Your task to perform on an android device: set default search engine in the chrome app Image 0: 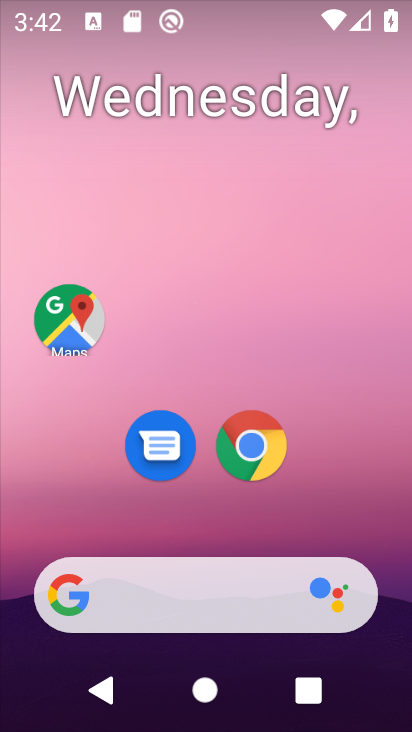
Step 0: click (300, 147)
Your task to perform on an android device: set default search engine in the chrome app Image 1: 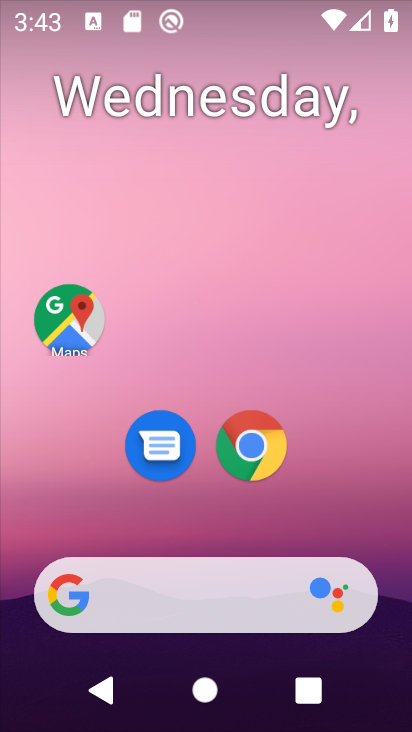
Step 1: drag from (388, 504) to (382, 34)
Your task to perform on an android device: set default search engine in the chrome app Image 2: 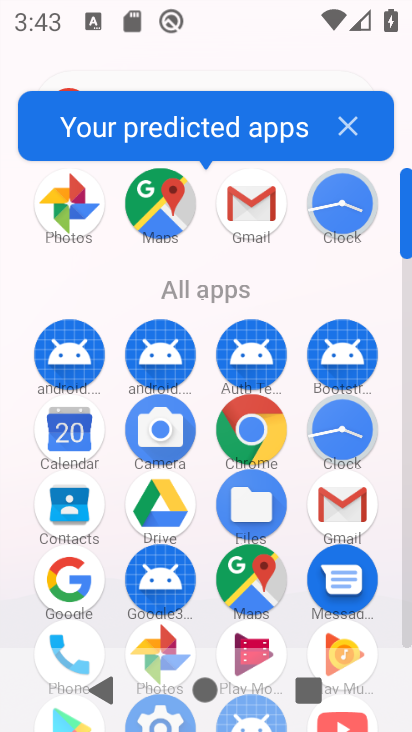
Step 2: click (250, 429)
Your task to perform on an android device: set default search engine in the chrome app Image 3: 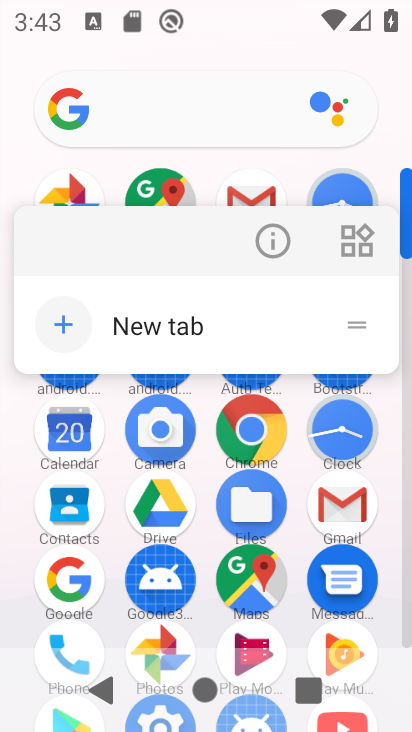
Step 3: click (250, 429)
Your task to perform on an android device: set default search engine in the chrome app Image 4: 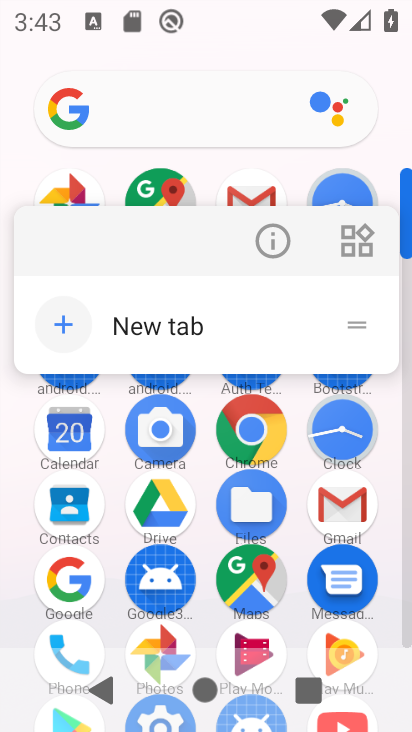
Step 4: click (250, 429)
Your task to perform on an android device: set default search engine in the chrome app Image 5: 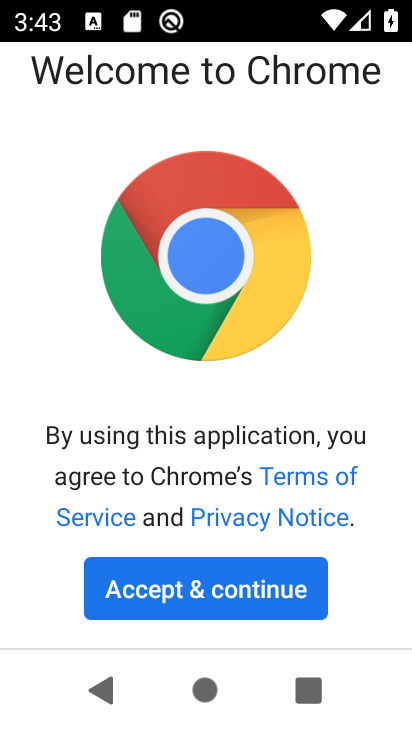
Step 5: click (212, 575)
Your task to perform on an android device: set default search engine in the chrome app Image 6: 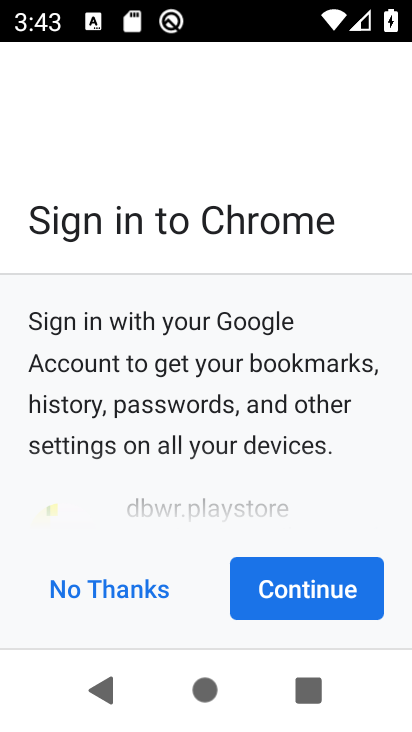
Step 6: click (130, 594)
Your task to perform on an android device: set default search engine in the chrome app Image 7: 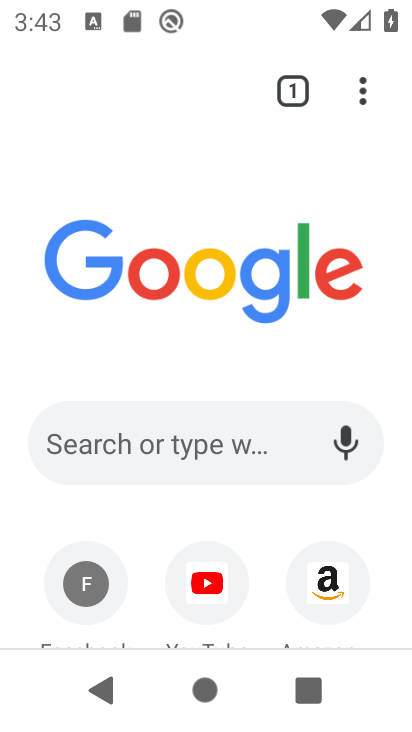
Step 7: click (368, 96)
Your task to perform on an android device: set default search engine in the chrome app Image 8: 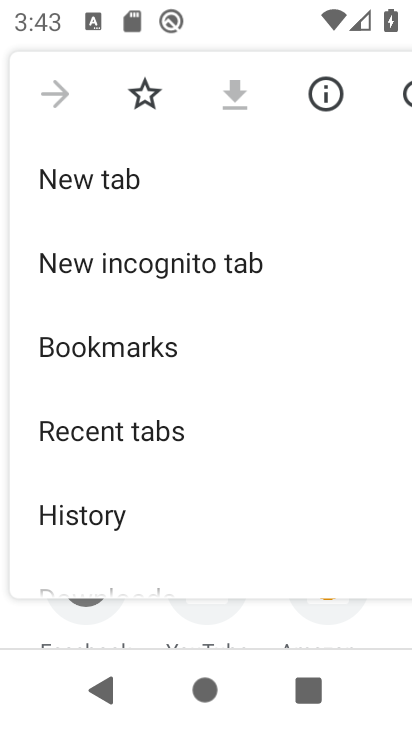
Step 8: drag from (190, 425) to (175, 35)
Your task to perform on an android device: set default search engine in the chrome app Image 9: 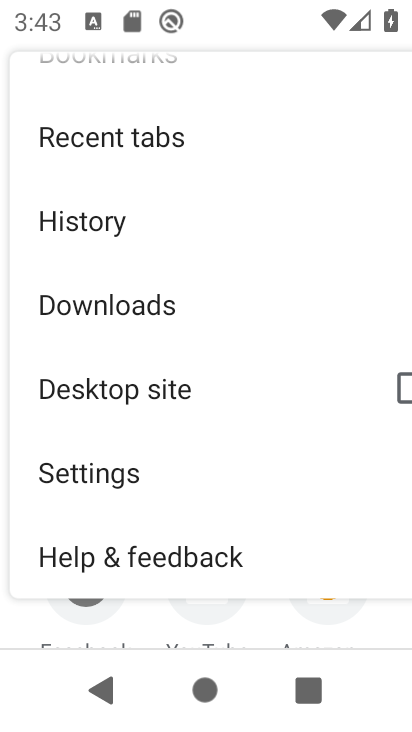
Step 9: click (107, 468)
Your task to perform on an android device: set default search engine in the chrome app Image 10: 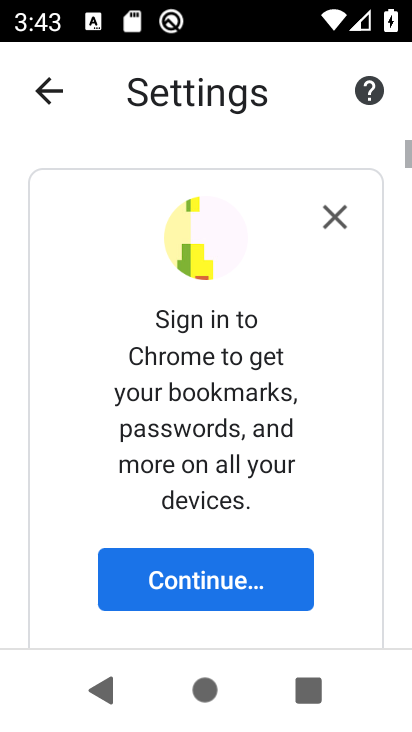
Step 10: drag from (242, 497) to (186, 16)
Your task to perform on an android device: set default search engine in the chrome app Image 11: 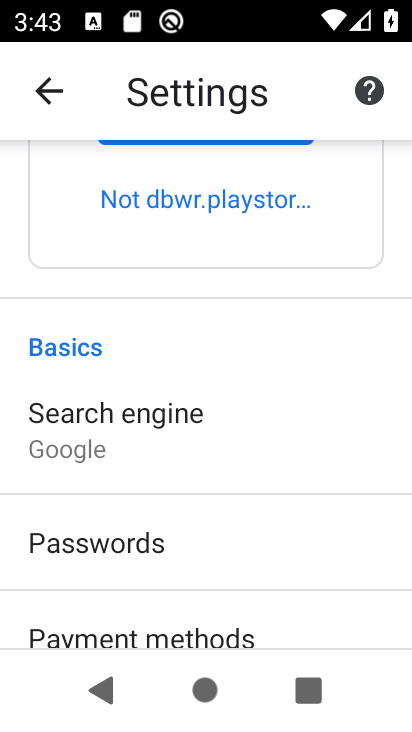
Step 11: click (66, 442)
Your task to perform on an android device: set default search engine in the chrome app Image 12: 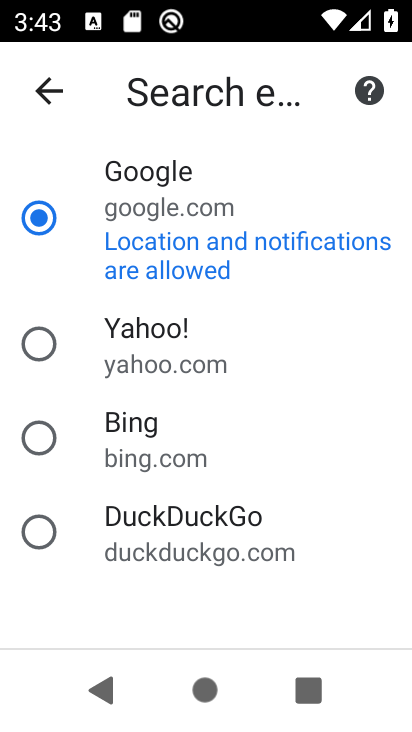
Step 12: click (47, 355)
Your task to perform on an android device: set default search engine in the chrome app Image 13: 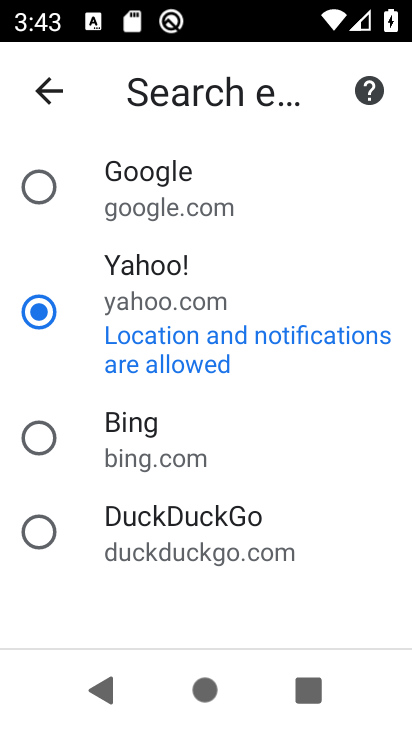
Step 13: task complete